Your task to perform on an android device: Add razer blackwidow to the cart on ebay, then select checkout. Image 0: 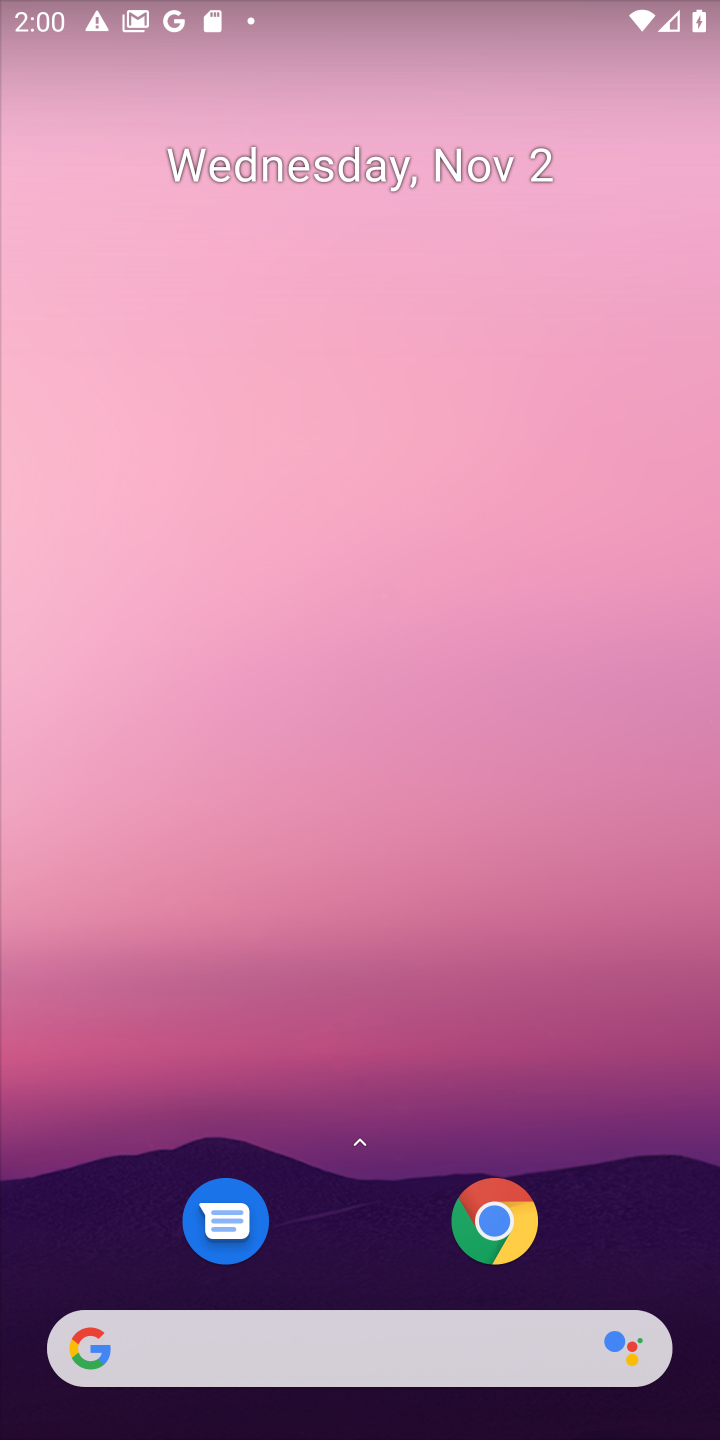
Step 0: click (450, 1353)
Your task to perform on an android device: Add razer blackwidow to the cart on ebay, then select checkout. Image 1: 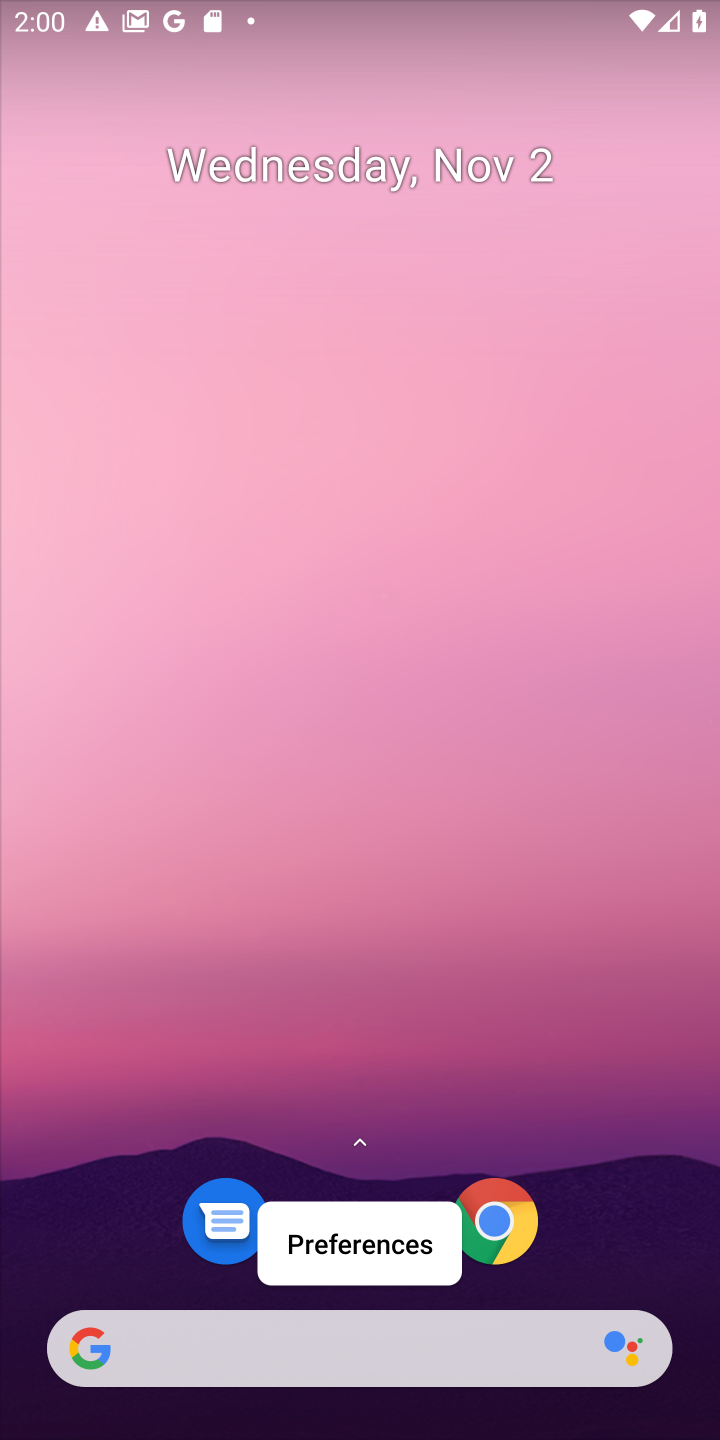
Step 1: type "razer blackwidow"
Your task to perform on an android device: Add razer blackwidow to the cart on ebay, then select checkout. Image 2: 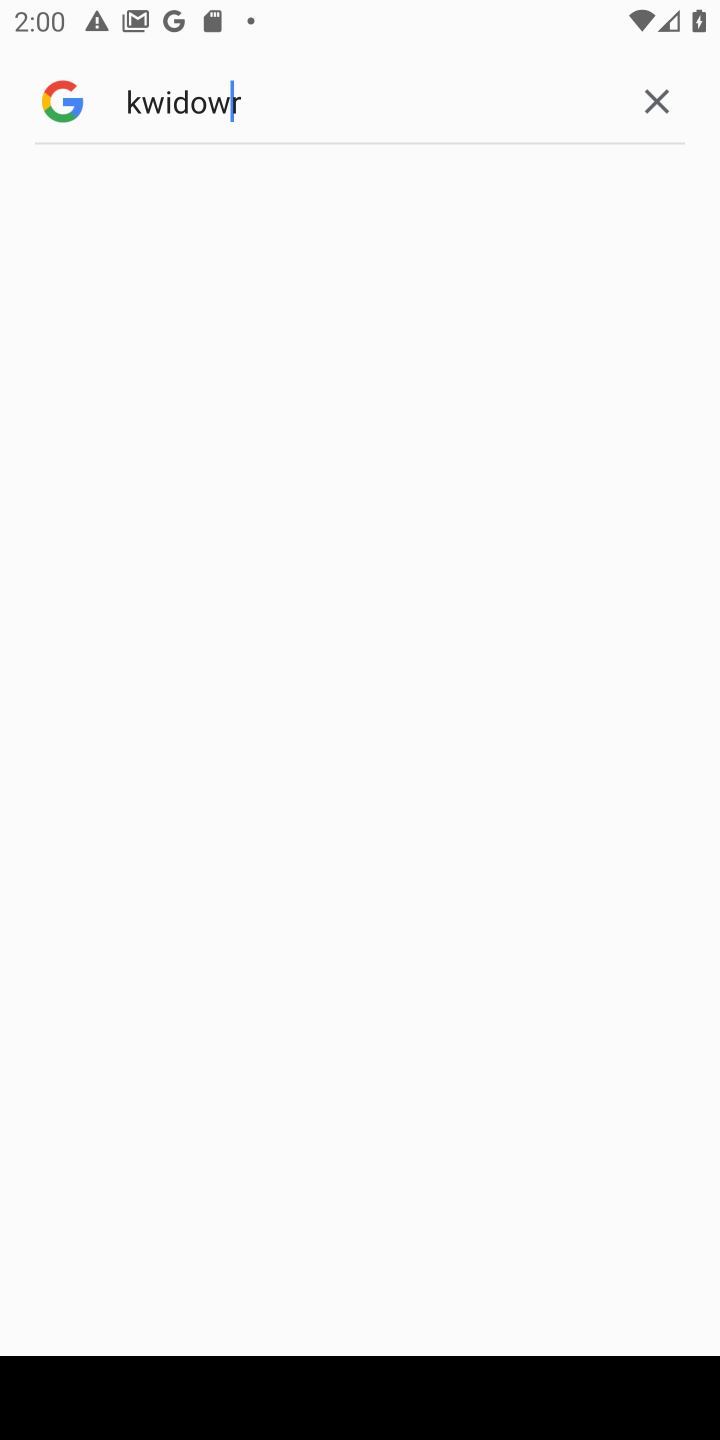
Step 2: task complete